Your task to perform on an android device: Add "macbook pro 13 inch" to the cart on walmart Image 0: 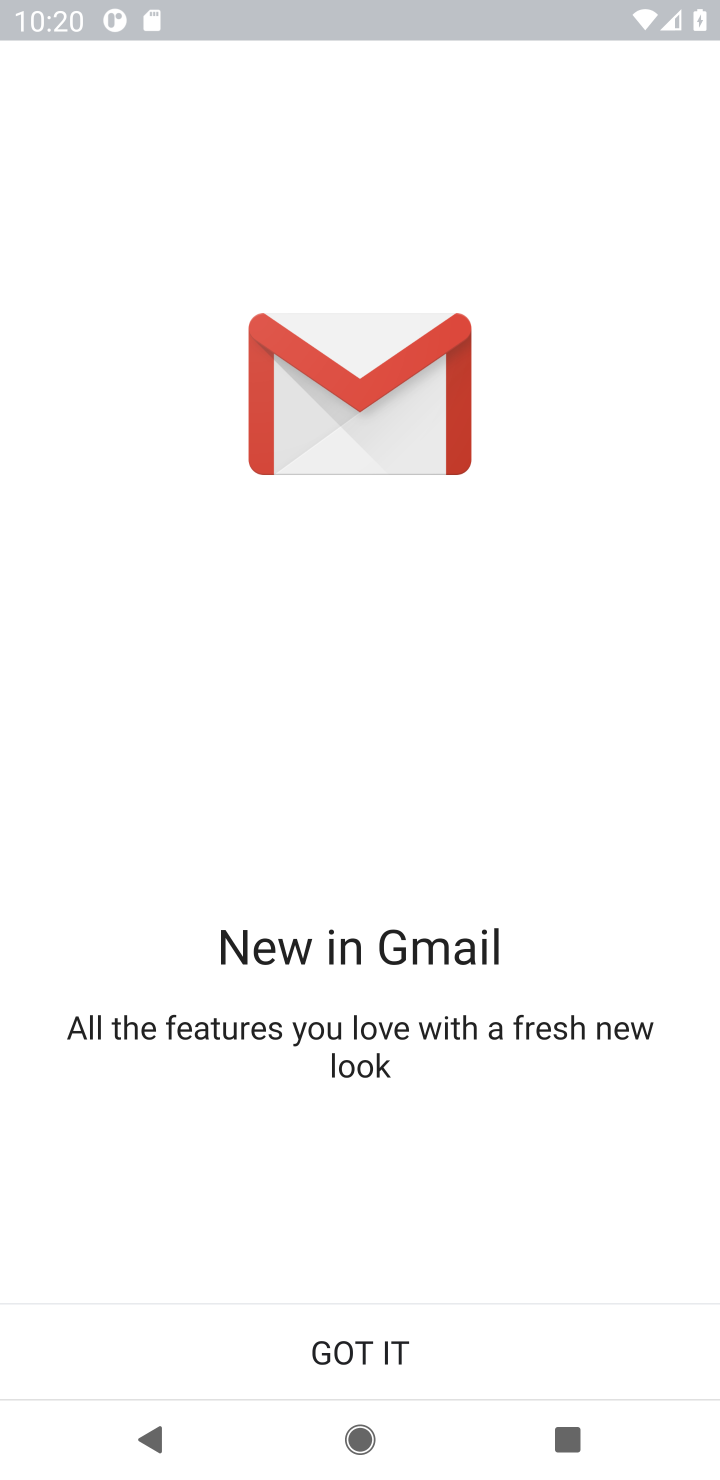
Step 0: press home button
Your task to perform on an android device: Add "macbook pro 13 inch" to the cart on walmart Image 1: 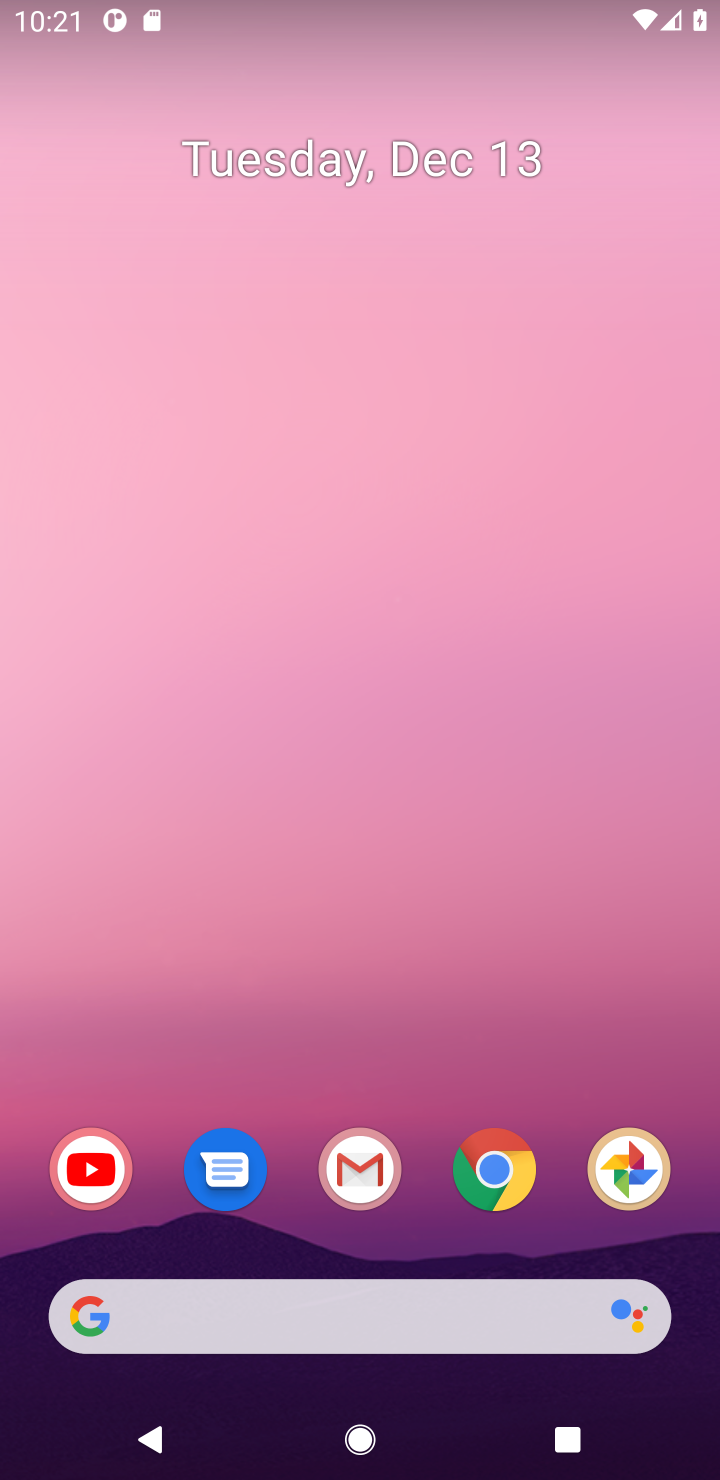
Step 1: click (354, 1324)
Your task to perform on an android device: Add "macbook pro 13 inch" to the cart on walmart Image 2: 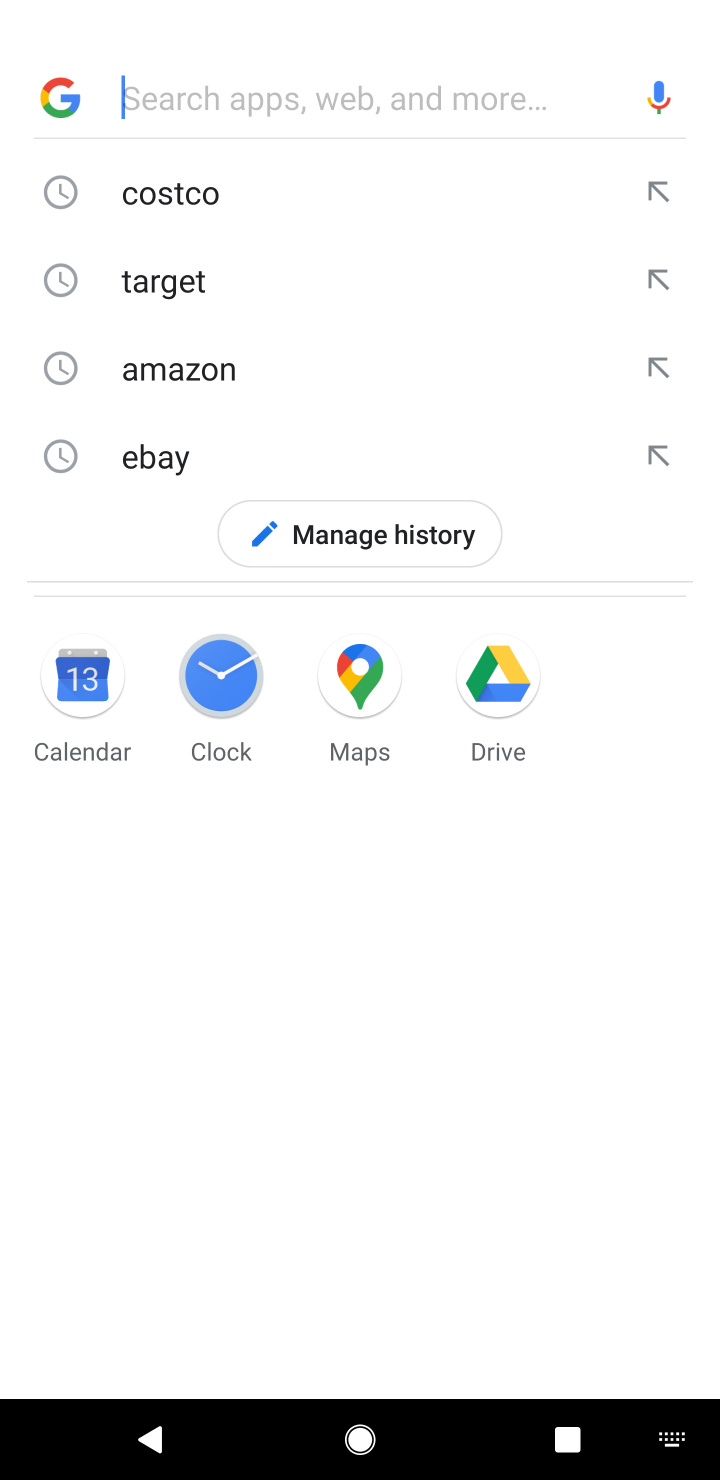
Step 2: type "walmart"
Your task to perform on an android device: Add "macbook pro 13 inch" to the cart on walmart Image 3: 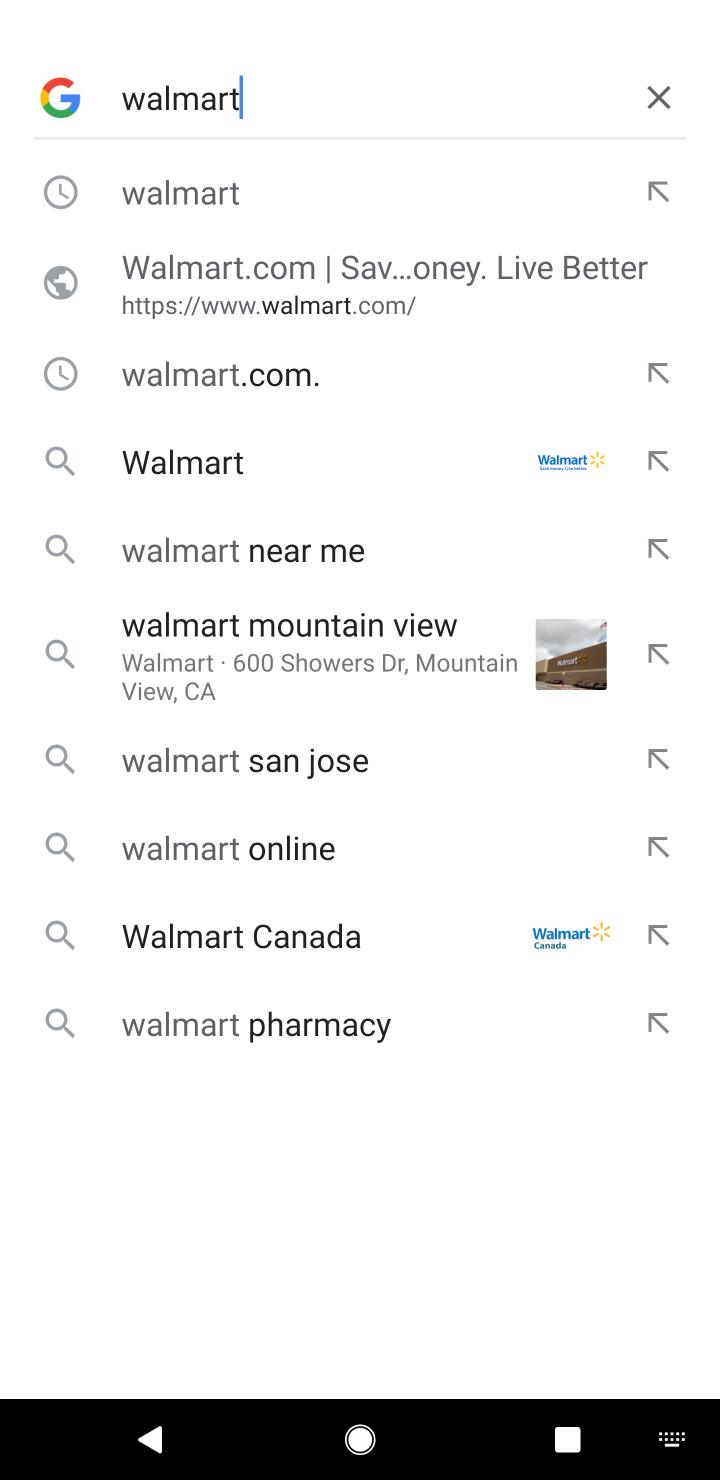
Step 3: click (180, 208)
Your task to perform on an android device: Add "macbook pro 13 inch" to the cart on walmart Image 4: 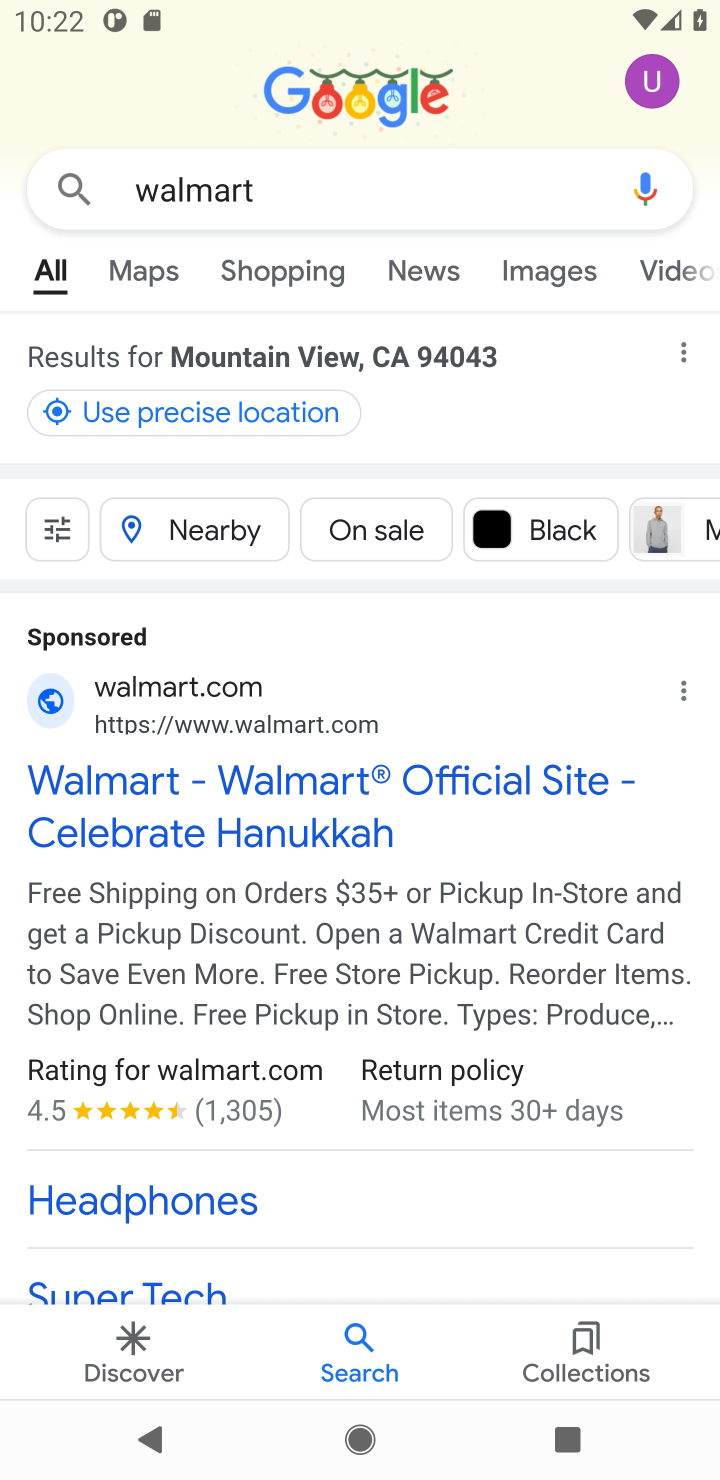
Step 4: click (114, 796)
Your task to perform on an android device: Add "macbook pro 13 inch" to the cart on walmart Image 5: 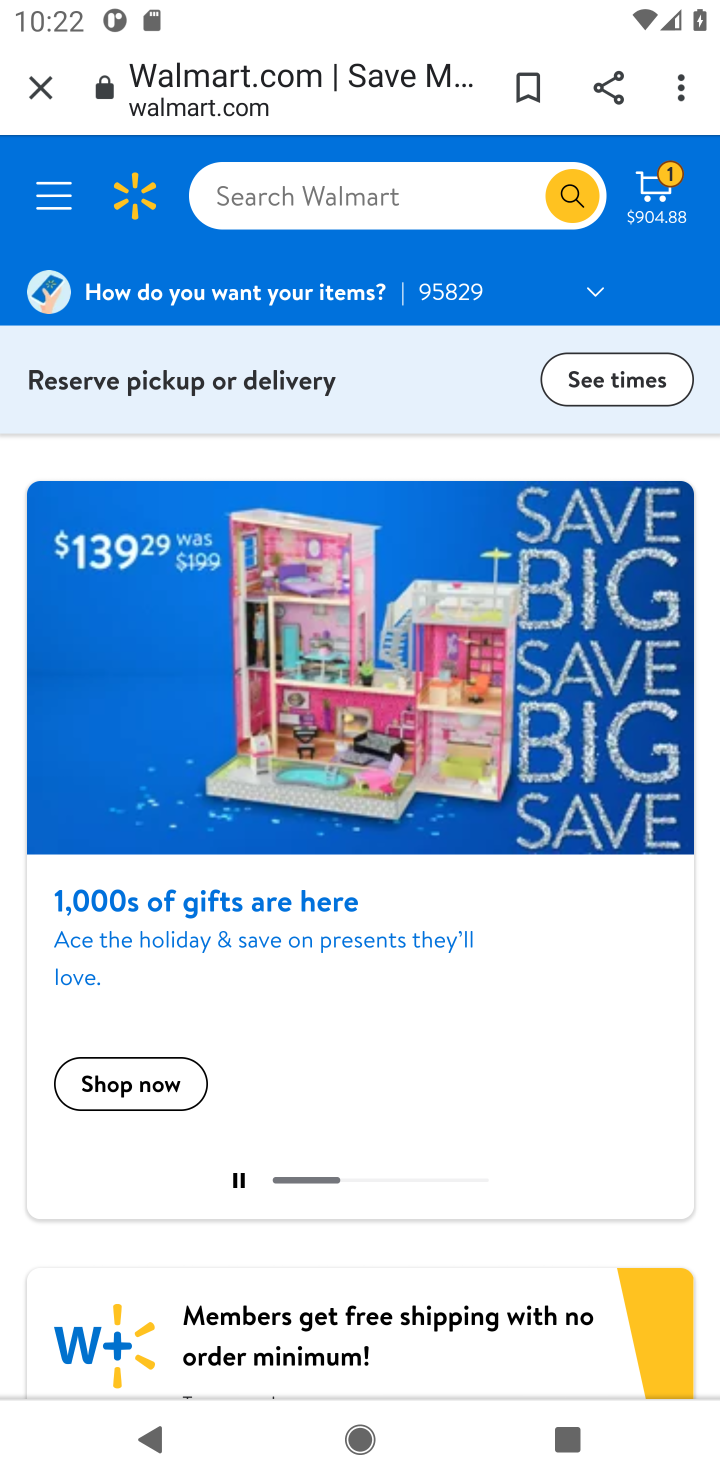
Step 5: task complete